Your task to perform on an android device: delete browsing data in the chrome app Image 0: 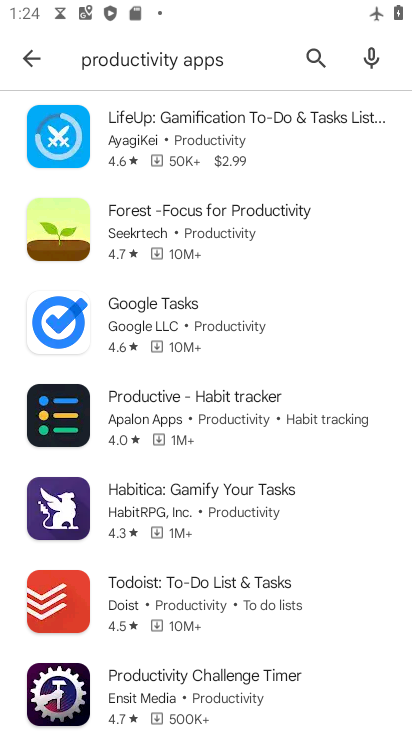
Step 0: press home button
Your task to perform on an android device: delete browsing data in the chrome app Image 1: 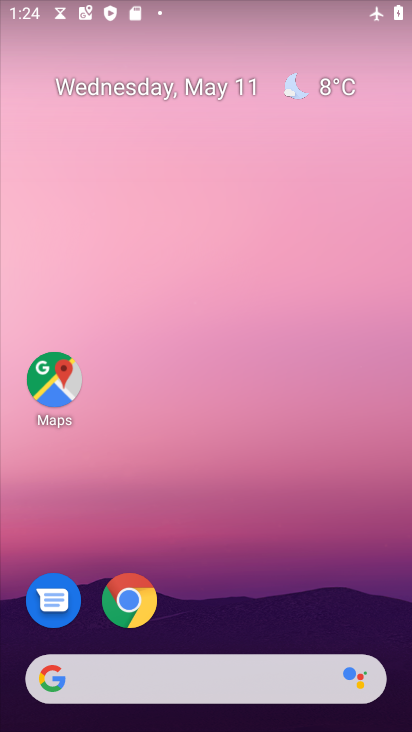
Step 1: click (131, 588)
Your task to perform on an android device: delete browsing data in the chrome app Image 2: 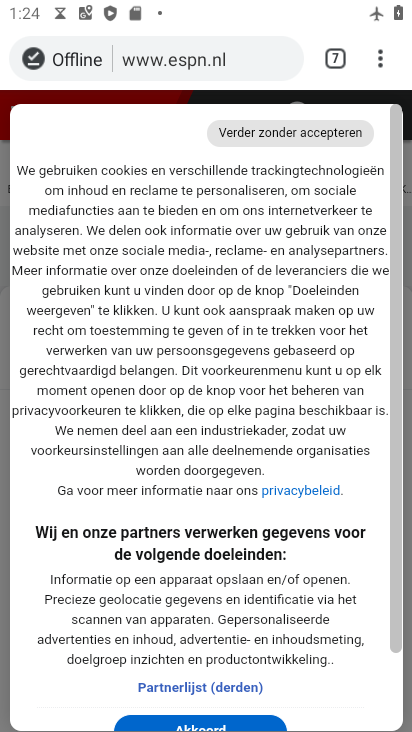
Step 2: click (389, 53)
Your task to perform on an android device: delete browsing data in the chrome app Image 3: 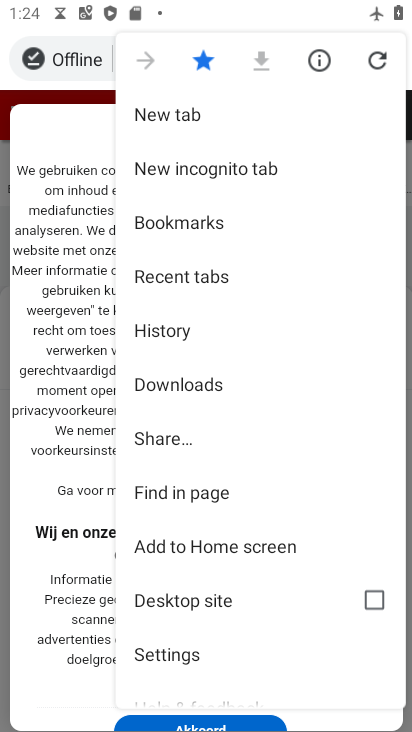
Step 3: click (207, 323)
Your task to perform on an android device: delete browsing data in the chrome app Image 4: 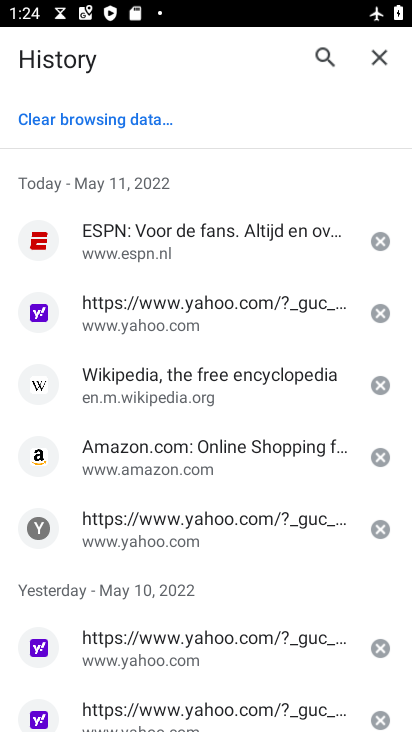
Step 4: click (114, 117)
Your task to perform on an android device: delete browsing data in the chrome app Image 5: 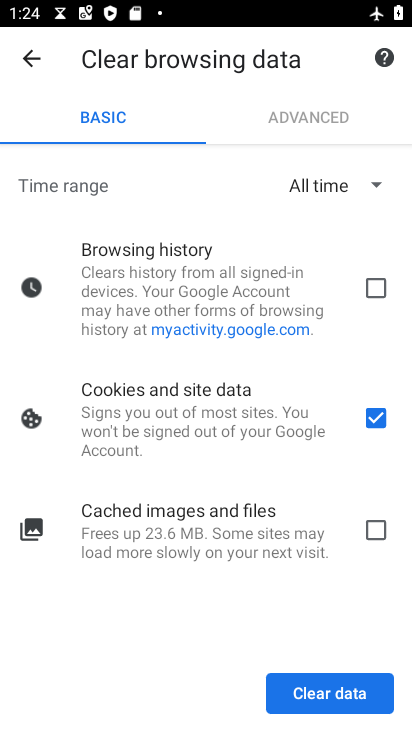
Step 5: click (370, 276)
Your task to perform on an android device: delete browsing data in the chrome app Image 6: 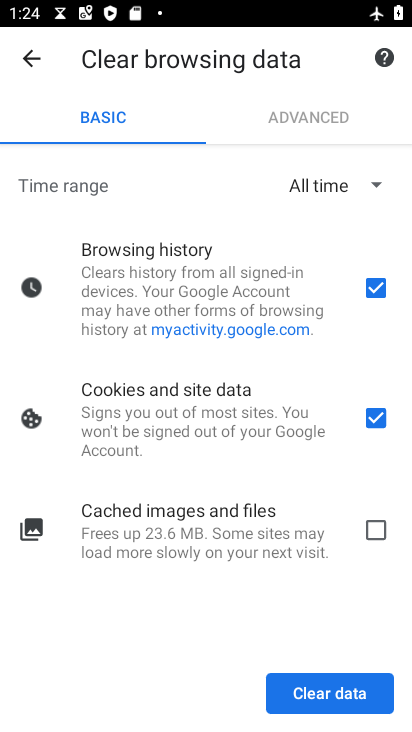
Step 6: click (379, 519)
Your task to perform on an android device: delete browsing data in the chrome app Image 7: 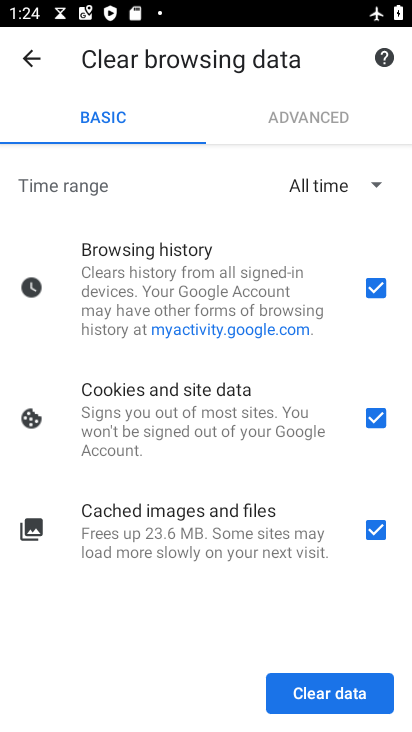
Step 7: click (310, 696)
Your task to perform on an android device: delete browsing data in the chrome app Image 8: 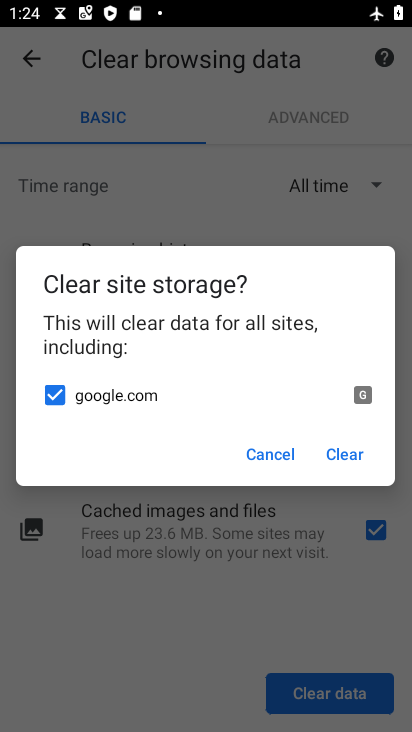
Step 8: click (346, 440)
Your task to perform on an android device: delete browsing data in the chrome app Image 9: 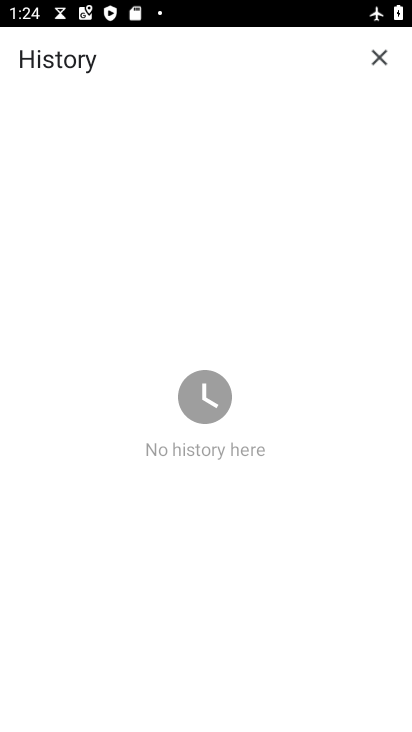
Step 9: task complete